Your task to perform on an android device: turn pop-ups off in chrome Image 0: 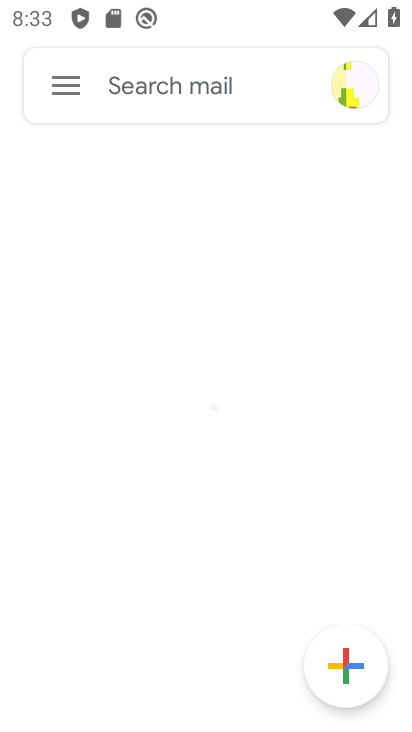
Step 0: press home button
Your task to perform on an android device: turn pop-ups off in chrome Image 1: 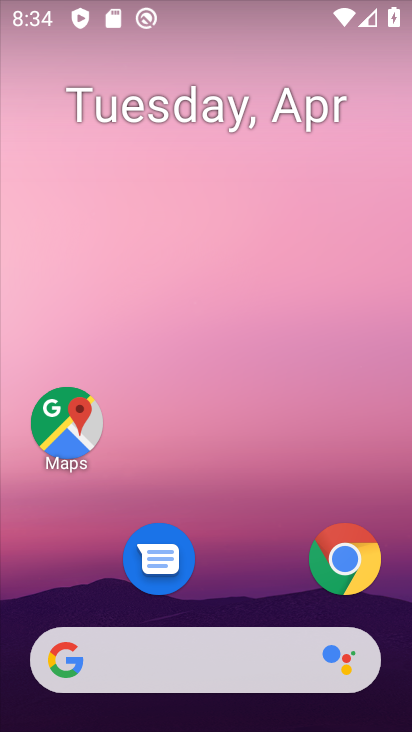
Step 1: click (364, 546)
Your task to perform on an android device: turn pop-ups off in chrome Image 2: 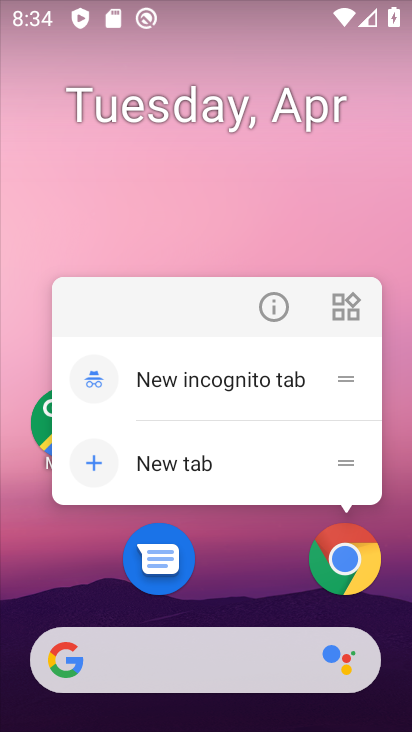
Step 2: click (261, 547)
Your task to perform on an android device: turn pop-ups off in chrome Image 3: 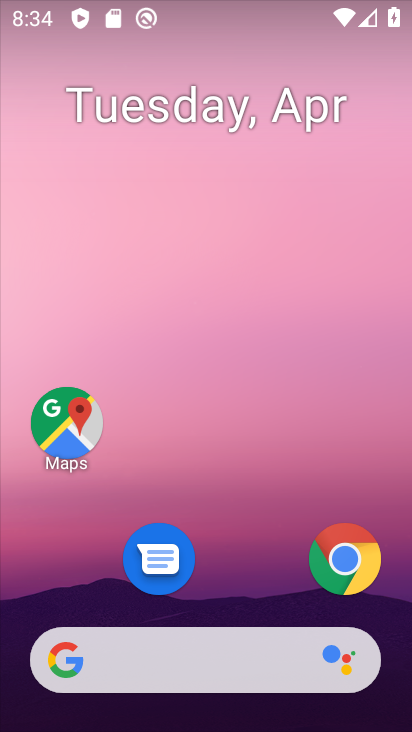
Step 3: drag from (238, 712) to (187, 163)
Your task to perform on an android device: turn pop-ups off in chrome Image 4: 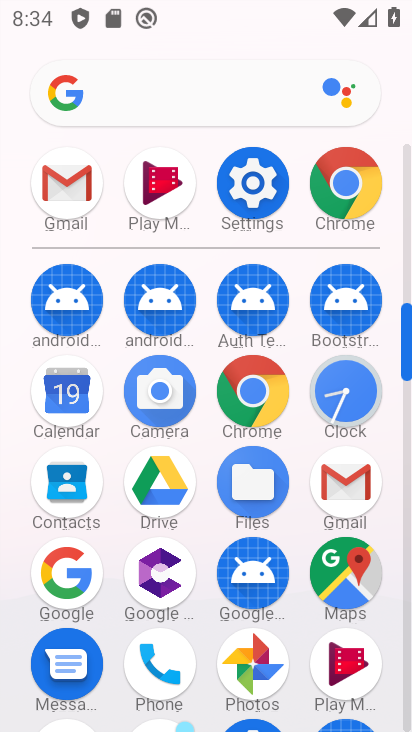
Step 4: click (256, 384)
Your task to perform on an android device: turn pop-ups off in chrome Image 5: 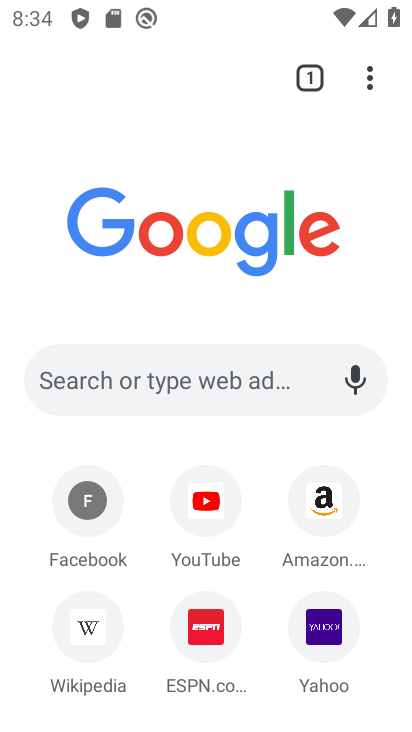
Step 5: click (368, 88)
Your task to perform on an android device: turn pop-ups off in chrome Image 6: 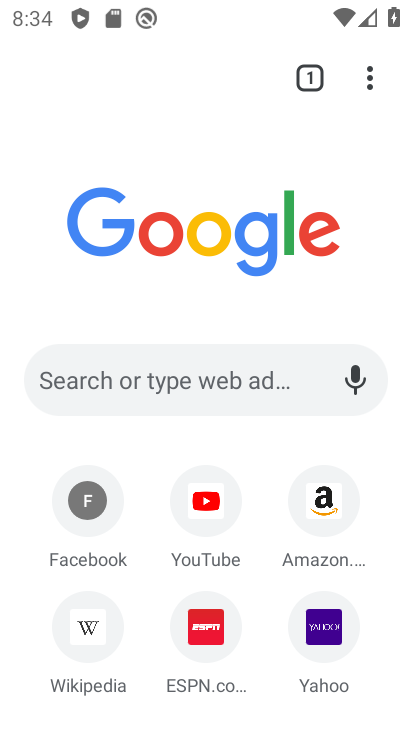
Step 6: click (370, 77)
Your task to perform on an android device: turn pop-ups off in chrome Image 7: 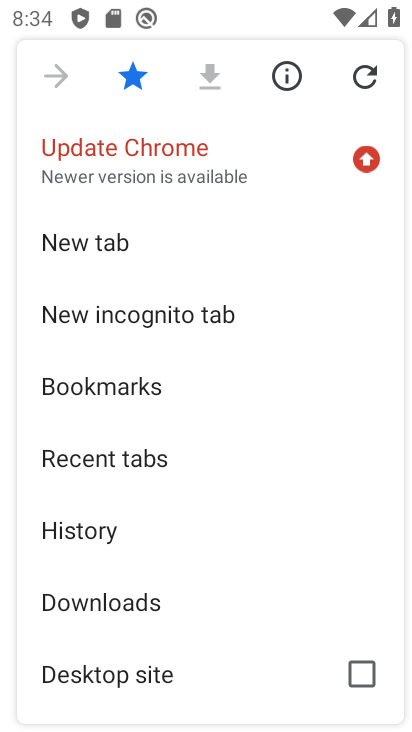
Step 7: drag from (111, 682) to (116, 582)
Your task to perform on an android device: turn pop-ups off in chrome Image 8: 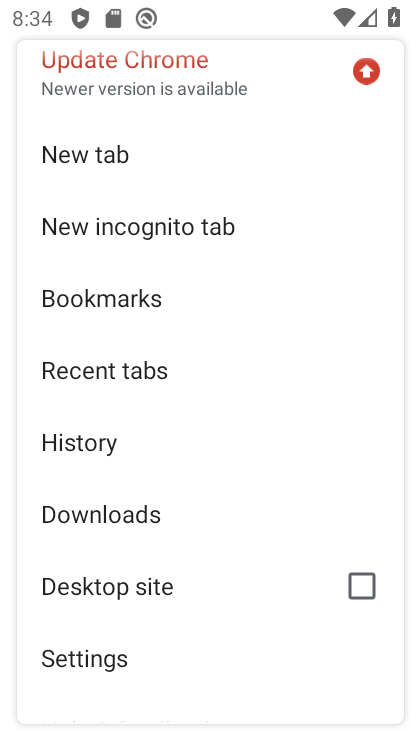
Step 8: click (80, 655)
Your task to perform on an android device: turn pop-ups off in chrome Image 9: 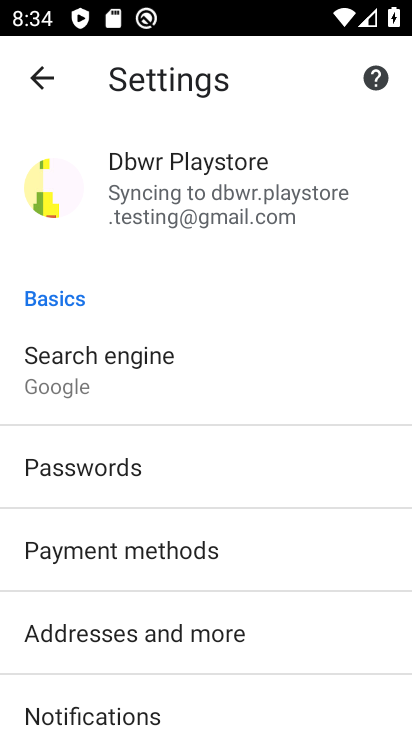
Step 9: drag from (145, 606) to (177, 242)
Your task to perform on an android device: turn pop-ups off in chrome Image 10: 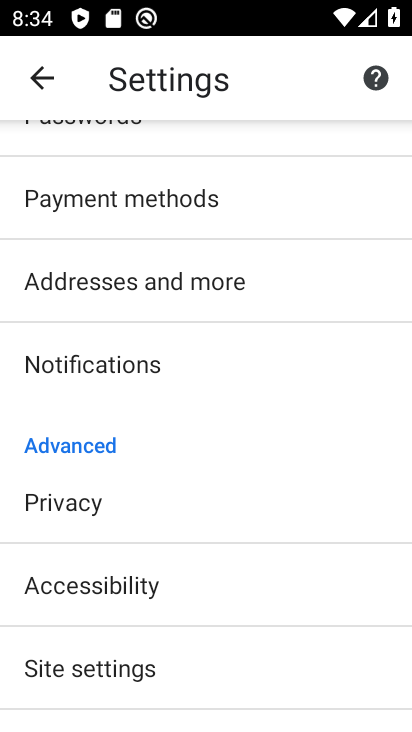
Step 10: click (91, 673)
Your task to perform on an android device: turn pop-ups off in chrome Image 11: 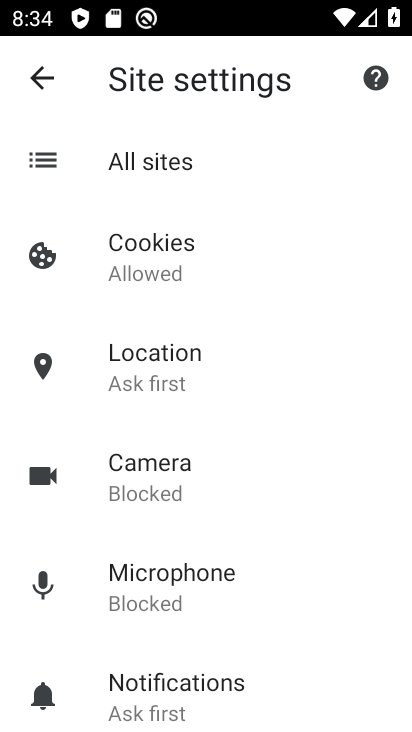
Step 11: drag from (173, 591) to (192, 321)
Your task to perform on an android device: turn pop-ups off in chrome Image 12: 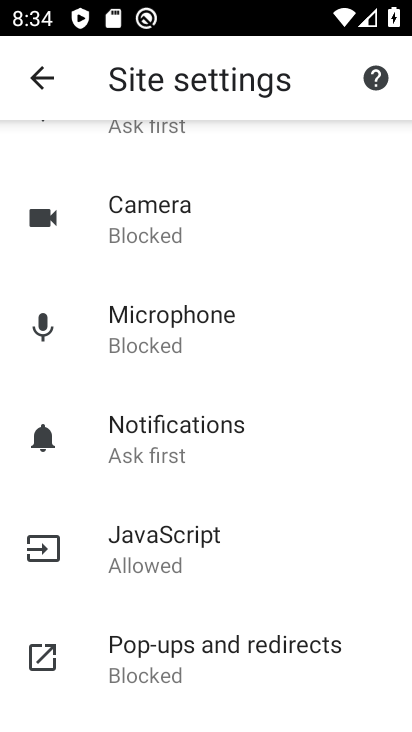
Step 12: click (143, 635)
Your task to perform on an android device: turn pop-ups off in chrome Image 13: 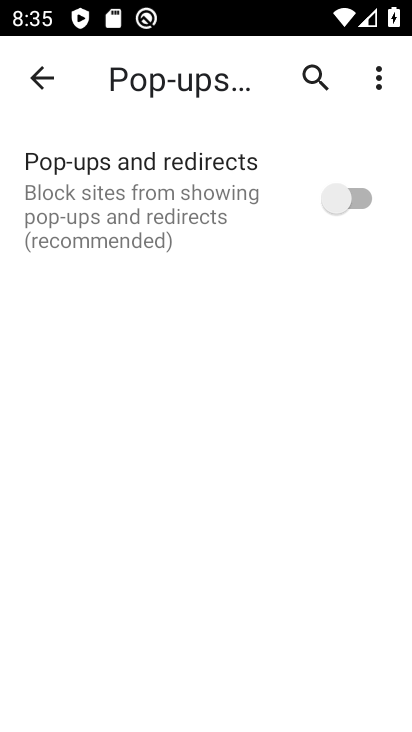
Step 13: click (297, 191)
Your task to perform on an android device: turn pop-ups off in chrome Image 14: 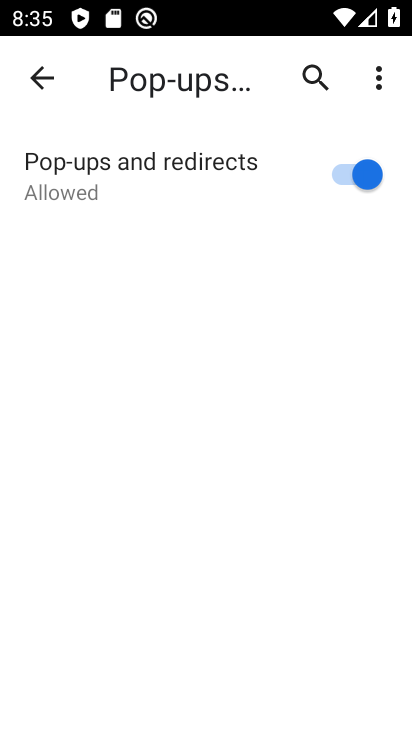
Step 14: click (297, 191)
Your task to perform on an android device: turn pop-ups off in chrome Image 15: 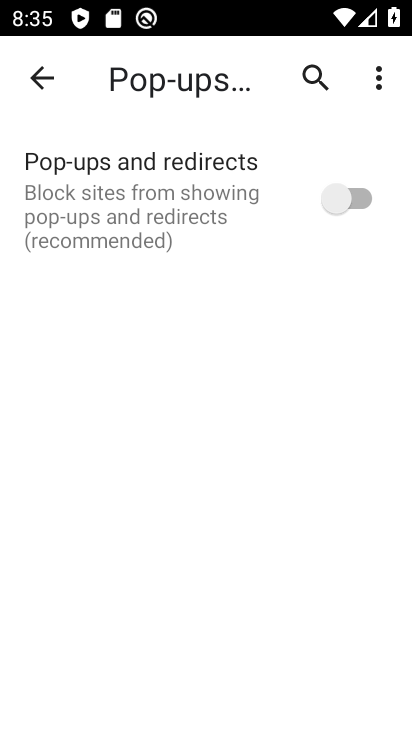
Step 15: task complete